Your task to perform on an android device: Go to location settings Image 0: 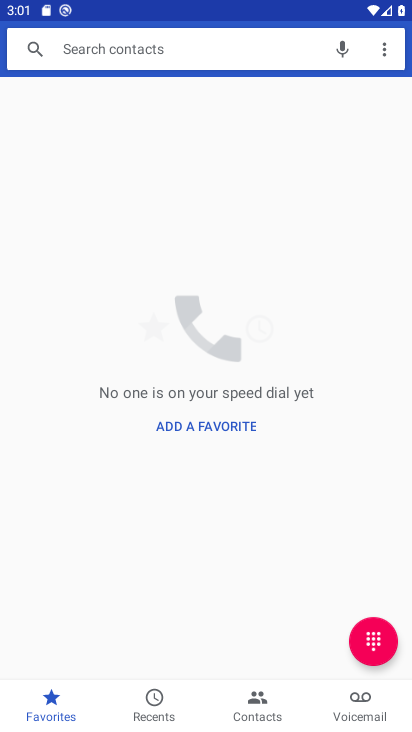
Step 0: press back button
Your task to perform on an android device: Go to location settings Image 1: 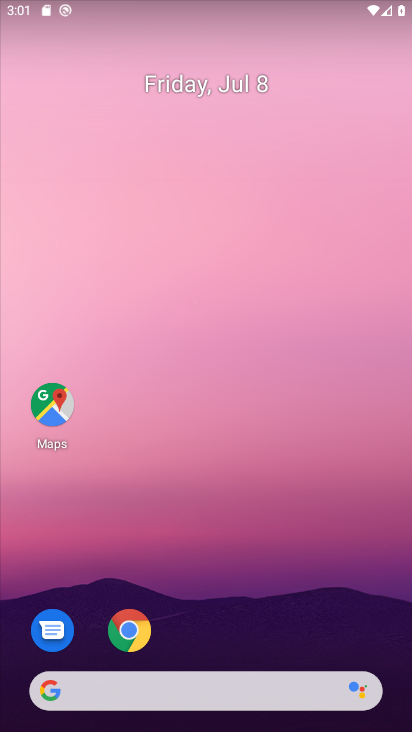
Step 1: press home button
Your task to perform on an android device: Go to location settings Image 2: 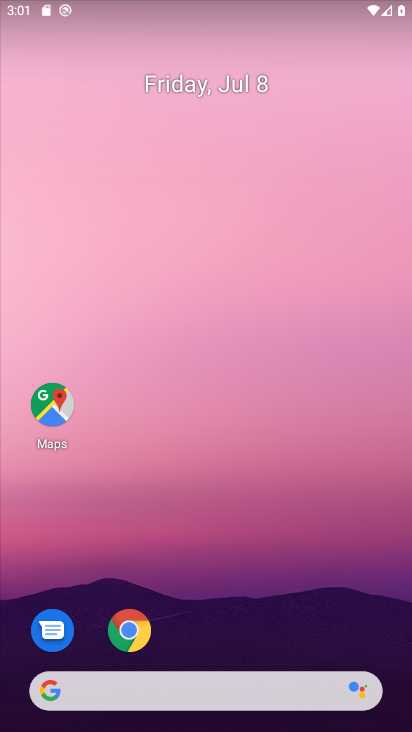
Step 2: press back button
Your task to perform on an android device: Go to location settings Image 3: 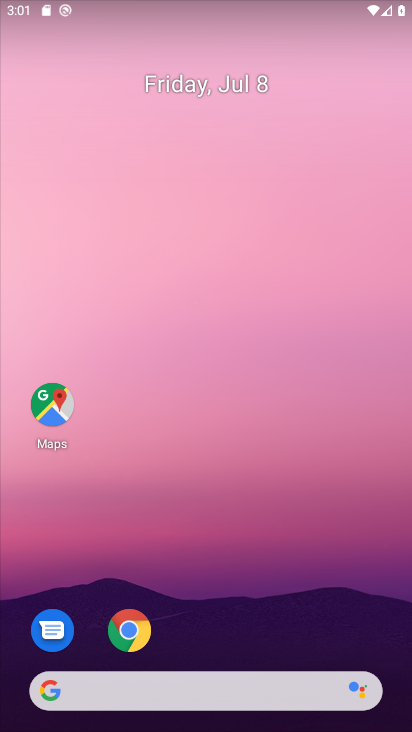
Step 3: drag from (310, 613) to (219, 96)
Your task to perform on an android device: Go to location settings Image 4: 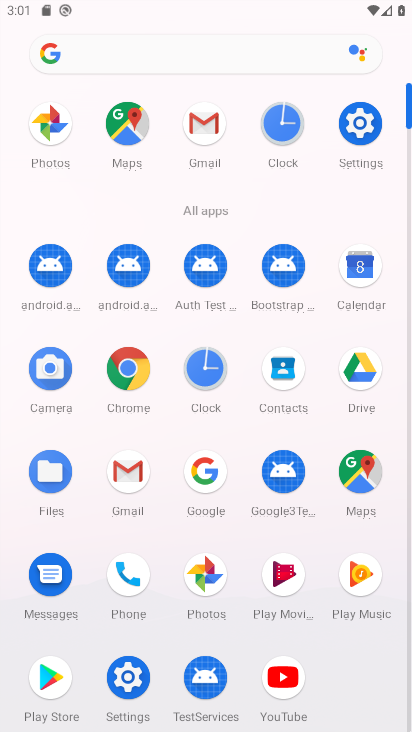
Step 4: drag from (297, 392) to (245, 145)
Your task to perform on an android device: Go to location settings Image 5: 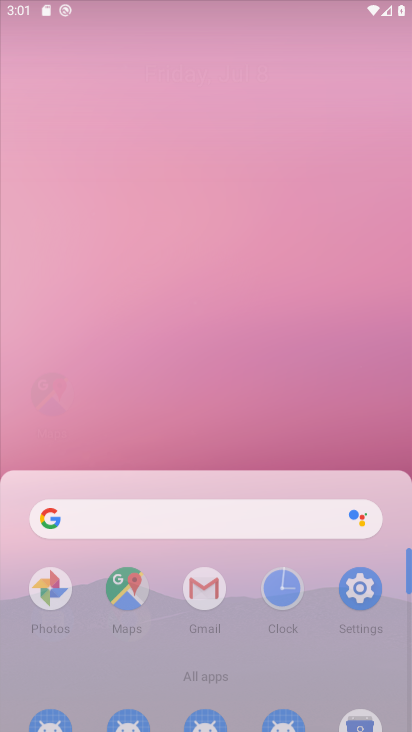
Step 5: drag from (351, 590) to (259, 181)
Your task to perform on an android device: Go to location settings Image 6: 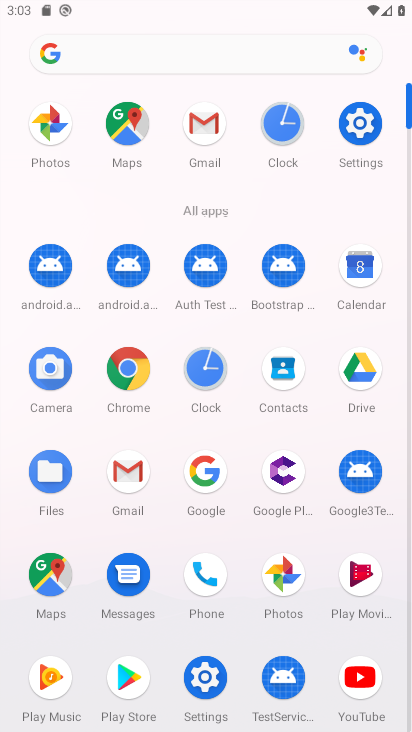
Step 6: click (360, 133)
Your task to perform on an android device: Go to location settings Image 7: 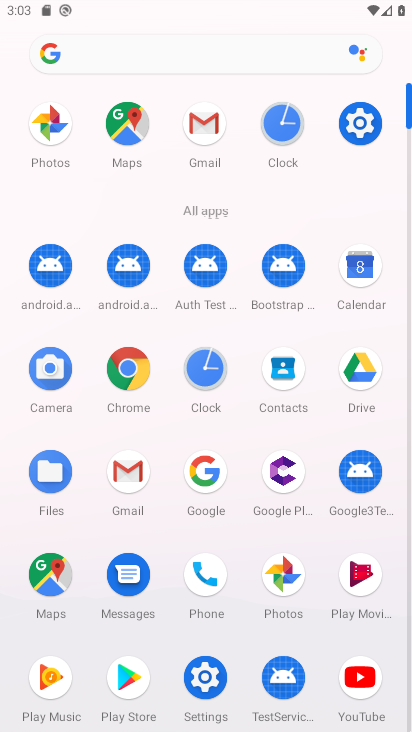
Step 7: click (358, 139)
Your task to perform on an android device: Go to location settings Image 8: 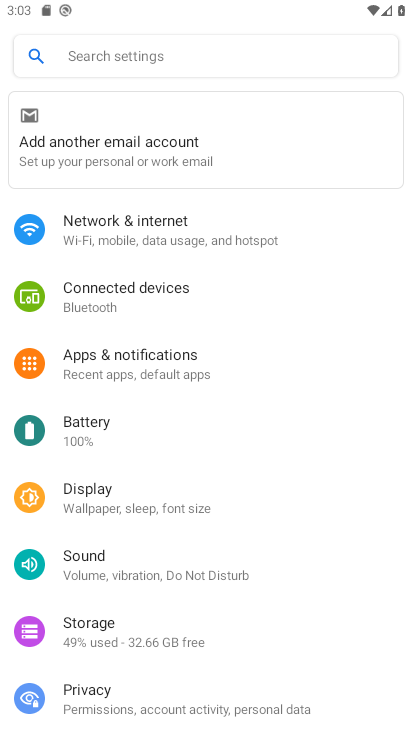
Step 8: click (363, 128)
Your task to perform on an android device: Go to location settings Image 9: 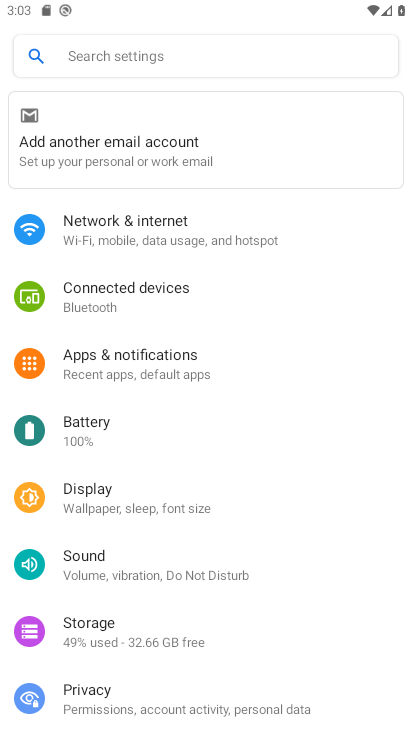
Step 9: click (372, 137)
Your task to perform on an android device: Go to location settings Image 10: 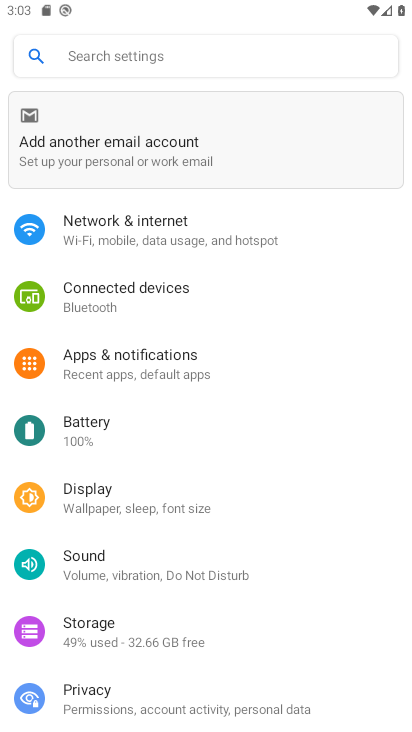
Step 10: click (370, 137)
Your task to perform on an android device: Go to location settings Image 11: 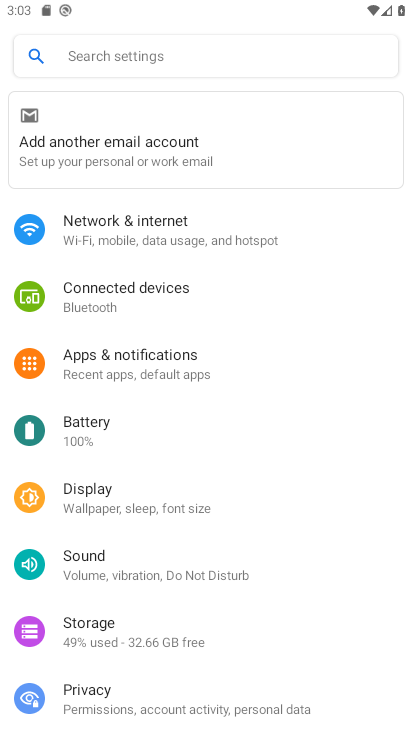
Step 11: click (357, 135)
Your task to perform on an android device: Go to location settings Image 12: 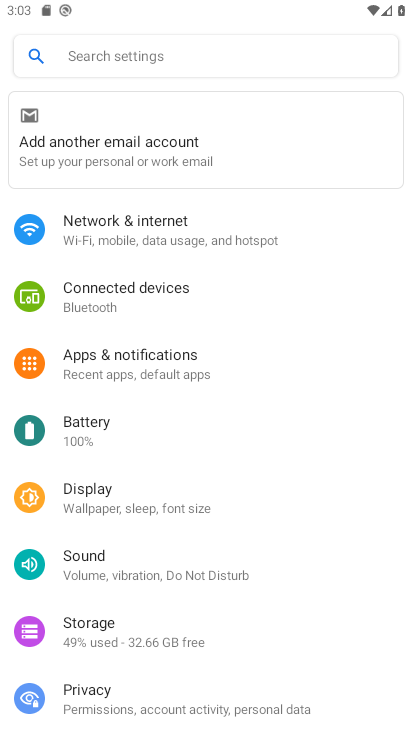
Step 12: click (359, 120)
Your task to perform on an android device: Go to location settings Image 13: 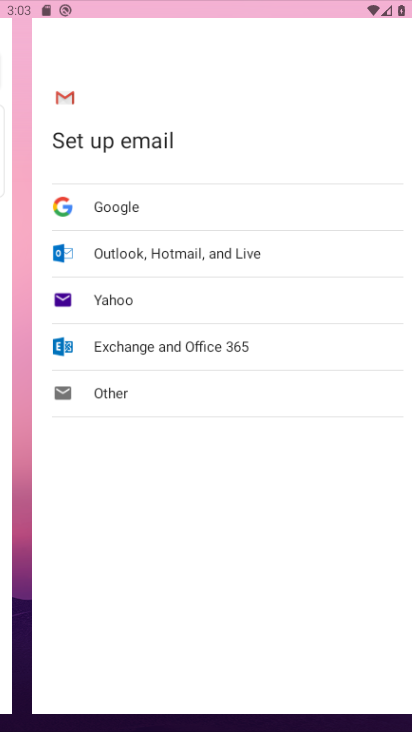
Step 13: click (350, 126)
Your task to perform on an android device: Go to location settings Image 14: 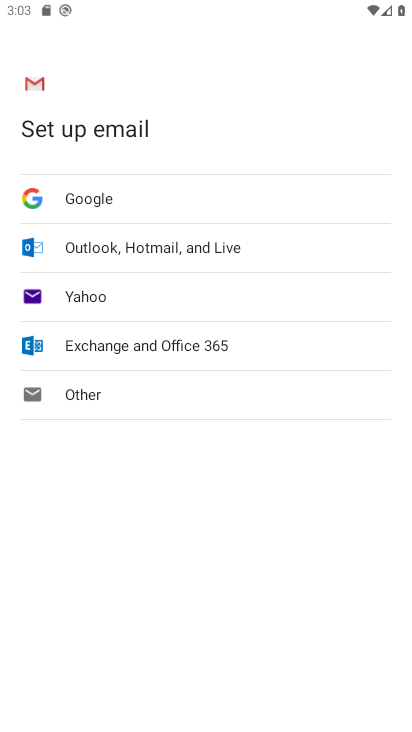
Step 14: click (373, 123)
Your task to perform on an android device: Go to location settings Image 15: 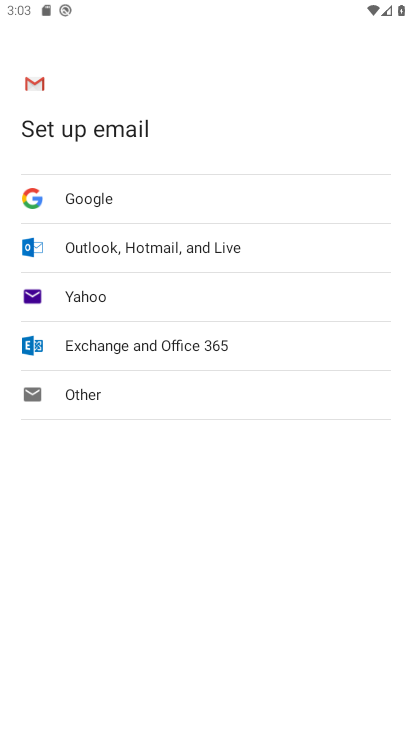
Step 15: click (352, 131)
Your task to perform on an android device: Go to location settings Image 16: 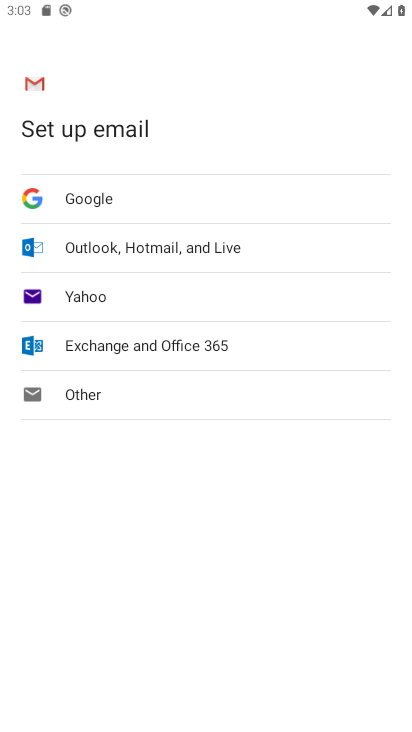
Step 16: task complete